Your task to perform on an android device: Go to wifi settings Image 0: 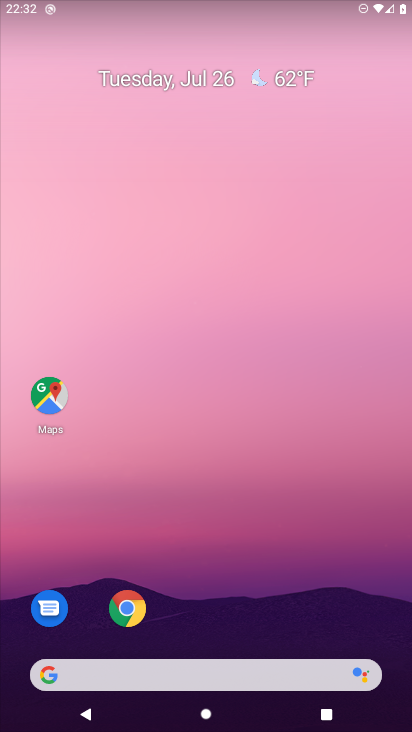
Step 0: drag from (25, 679) to (319, 146)
Your task to perform on an android device: Go to wifi settings Image 1: 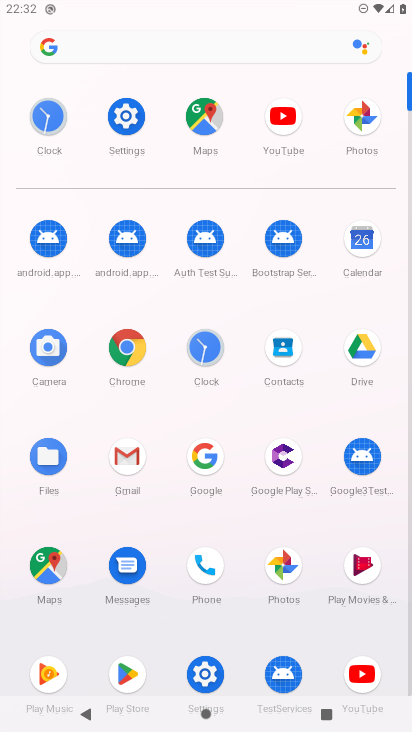
Step 1: click (194, 685)
Your task to perform on an android device: Go to wifi settings Image 2: 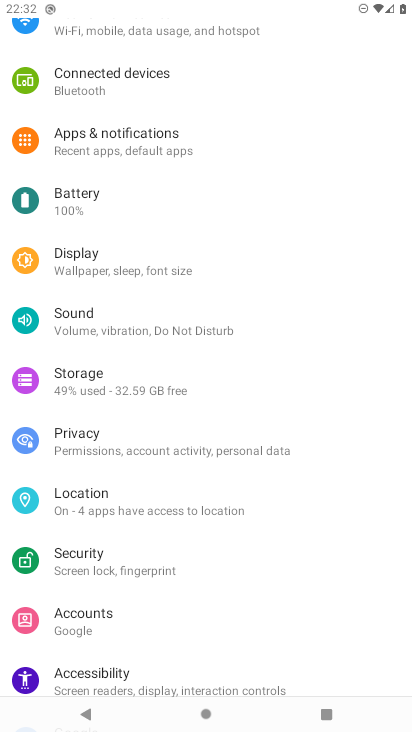
Step 2: drag from (294, 625) to (329, 713)
Your task to perform on an android device: Go to wifi settings Image 3: 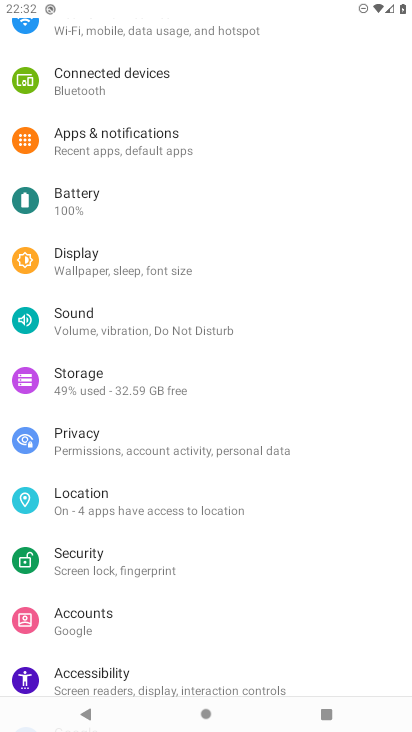
Step 3: drag from (306, 94) to (300, 491)
Your task to perform on an android device: Go to wifi settings Image 4: 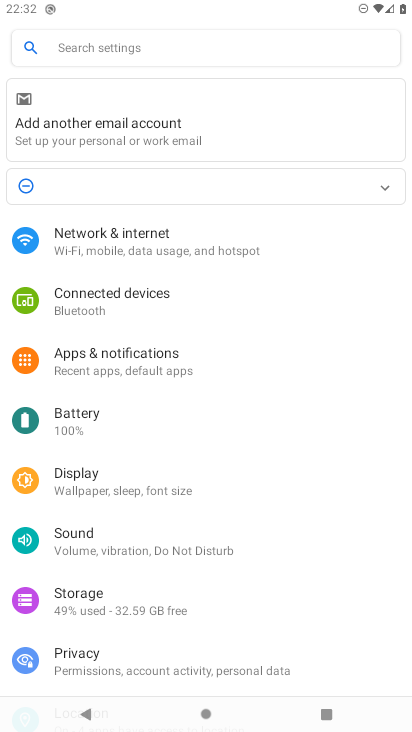
Step 4: click (110, 260)
Your task to perform on an android device: Go to wifi settings Image 5: 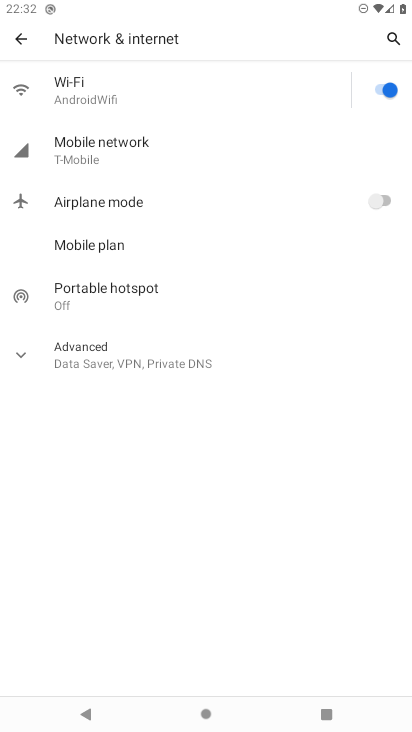
Step 5: task complete